Your task to perform on an android device: Show me the alarms in the clock app Image 0: 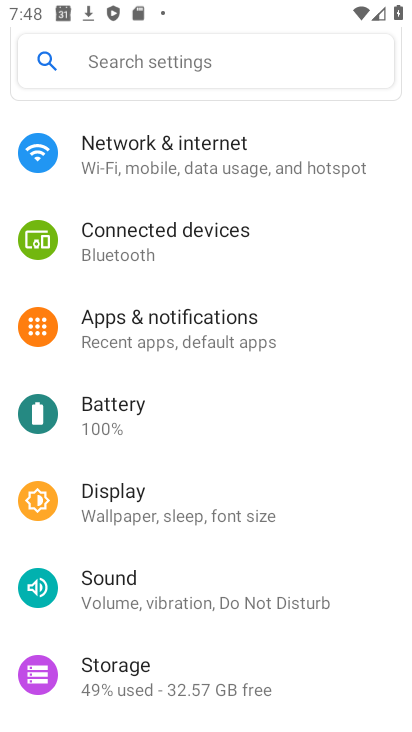
Step 0: press home button
Your task to perform on an android device: Show me the alarms in the clock app Image 1: 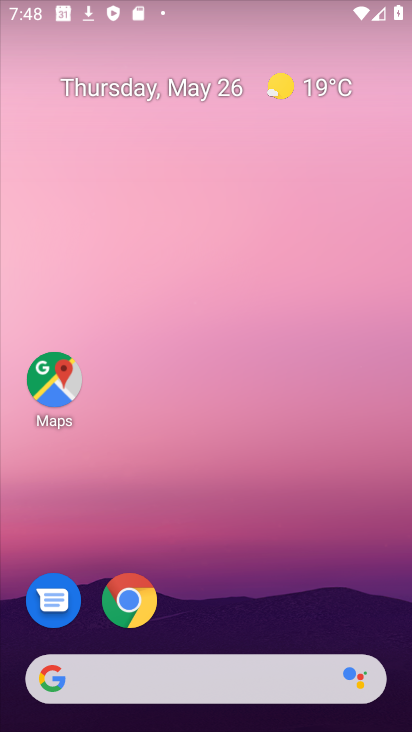
Step 1: drag from (204, 699) to (278, 98)
Your task to perform on an android device: Show me the alarms in the clock app Image 2: 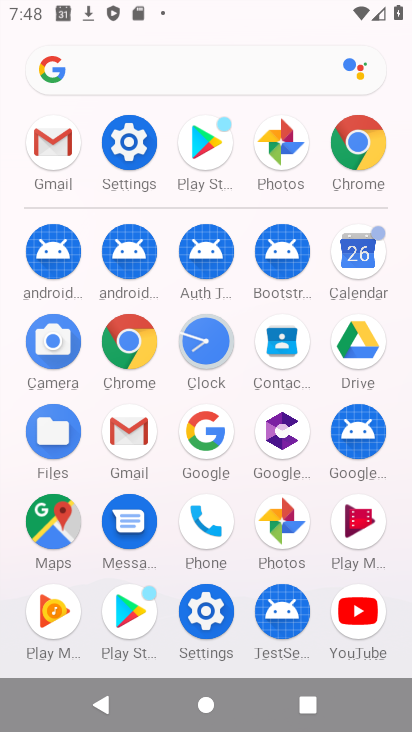
Step 2: click (202, 355)
Your task to perform on an android device: Show me the alarms in the clock app Image 3: 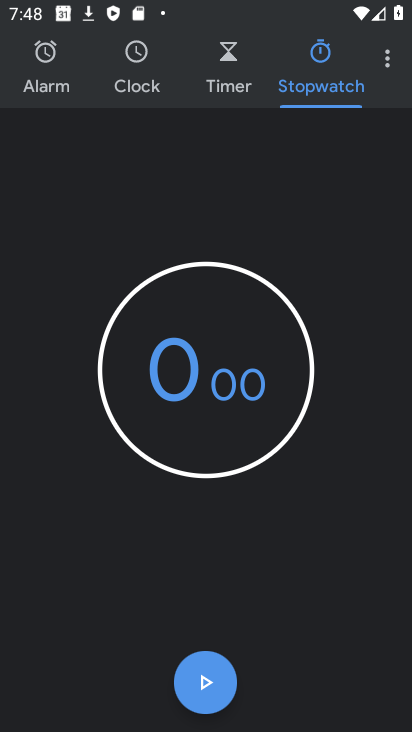
Step 3: click (44, 71)
Your task to perform on an android device: Show me the alarms in the clock app Image 4: 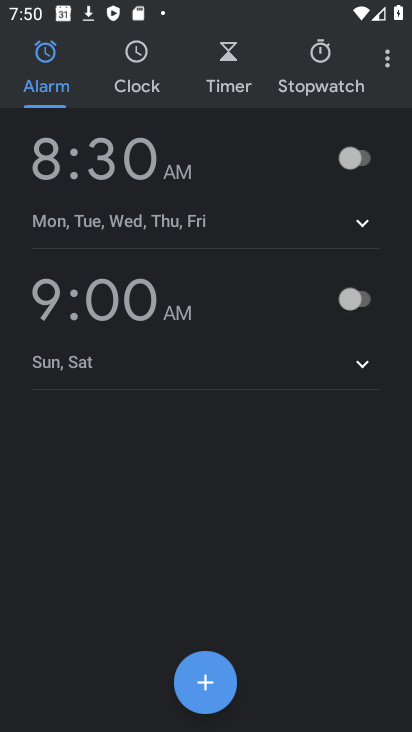
Step 4: task complete